Your task to perform on an android device: open app "Mercado Libre" Image 0: 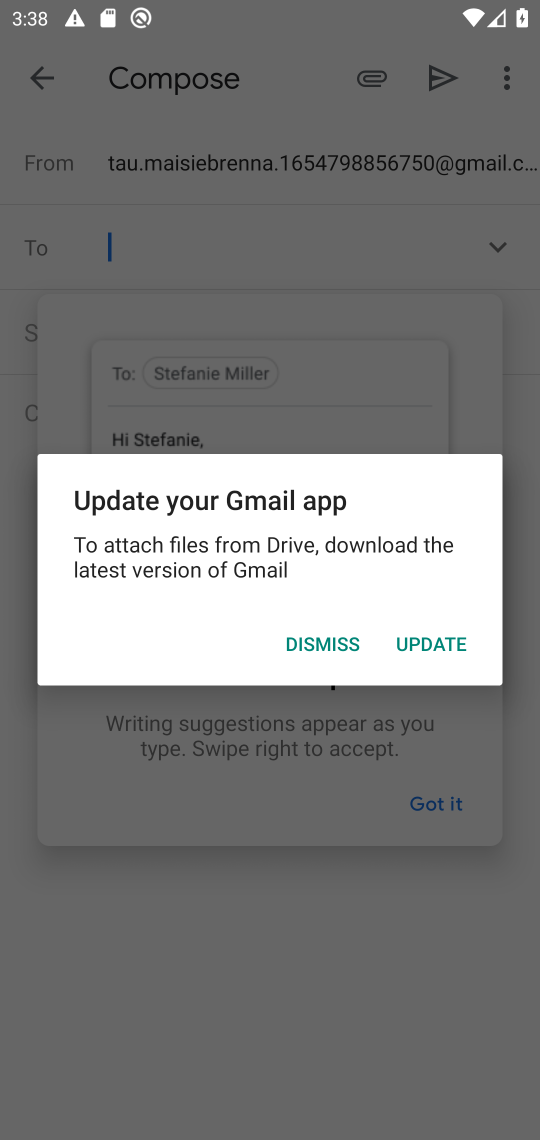
Step 0: click (340, 637)
Your task to perform on an android device: open app "Mercado Libre" Image 1: 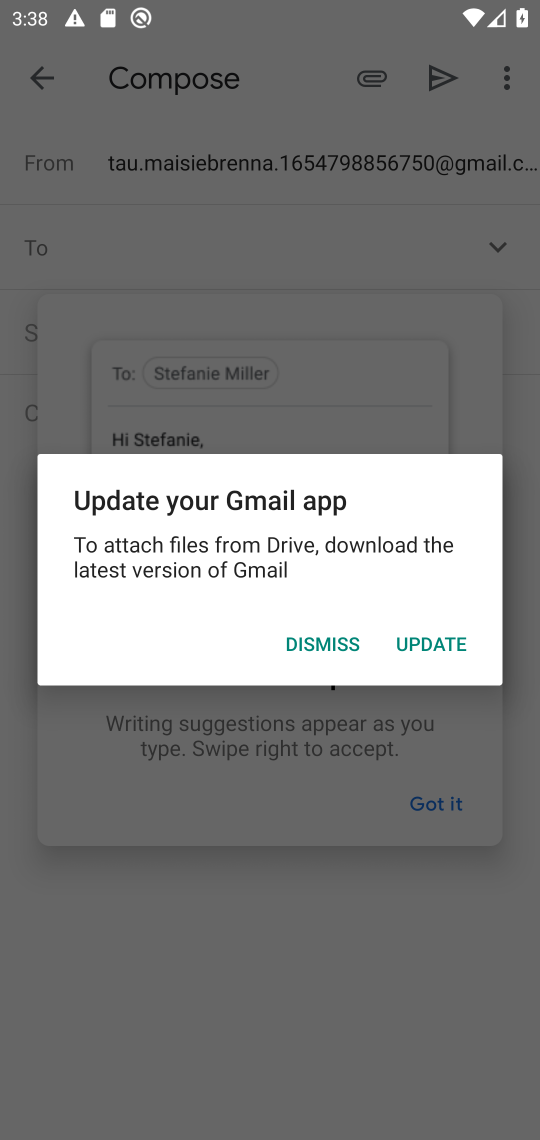
Step 1: click (340, 637)
Your task to perform on an android device: open app "Mercado Libre" Image 2: 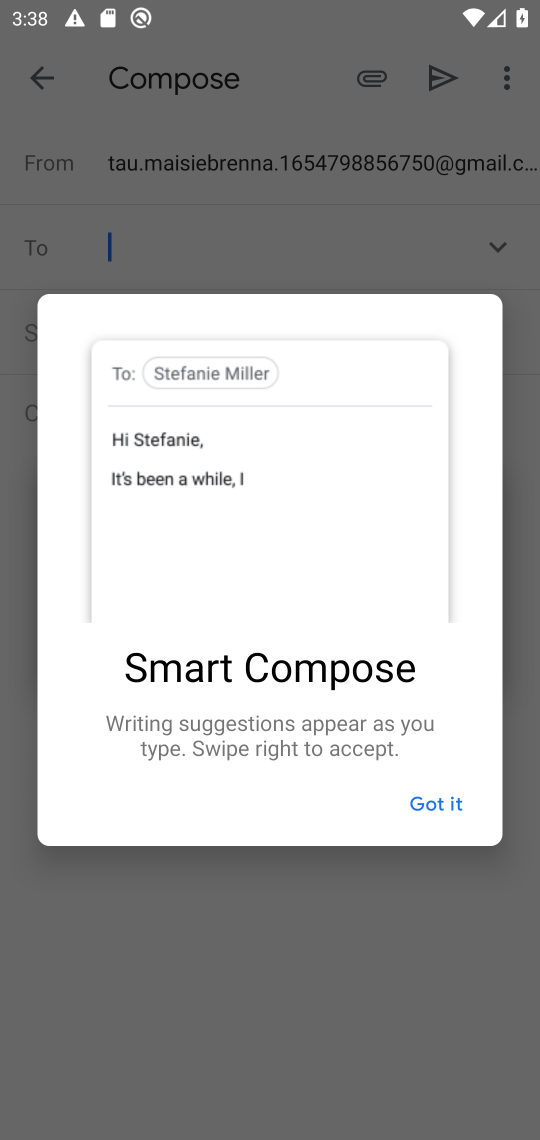
Step 2: click (446, 811)
Your task to perform on an android device: open app "Mercado Libre" Image 3: 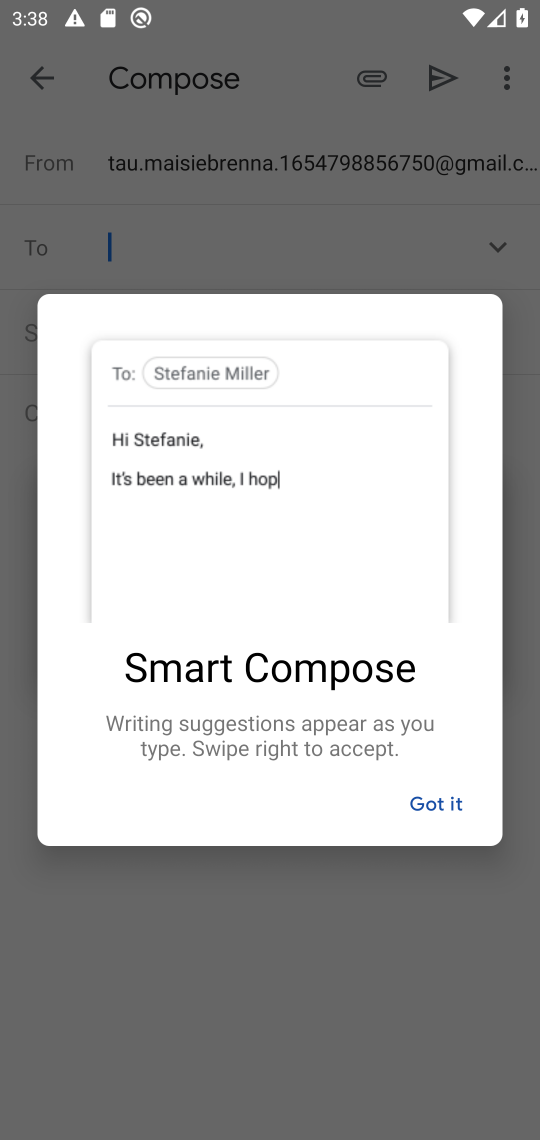
Step 3: click (446, 817)
Your task to perform on an android device: open app "Mercado Libre" Image 4: 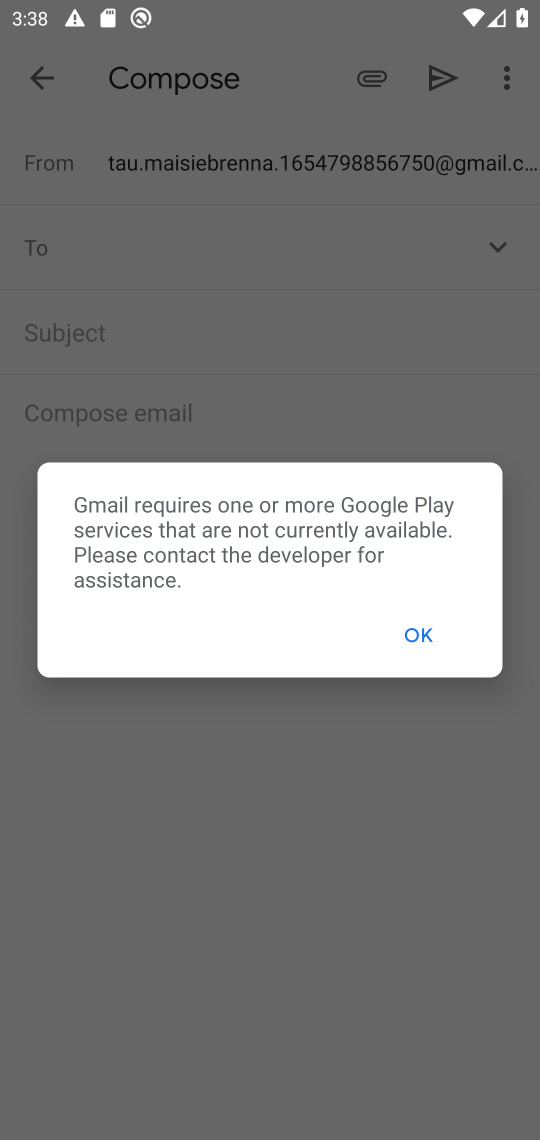
Step 4: click (404, 640)
Your task to perform on an android device: open app "Mercado Libre" Image 5: 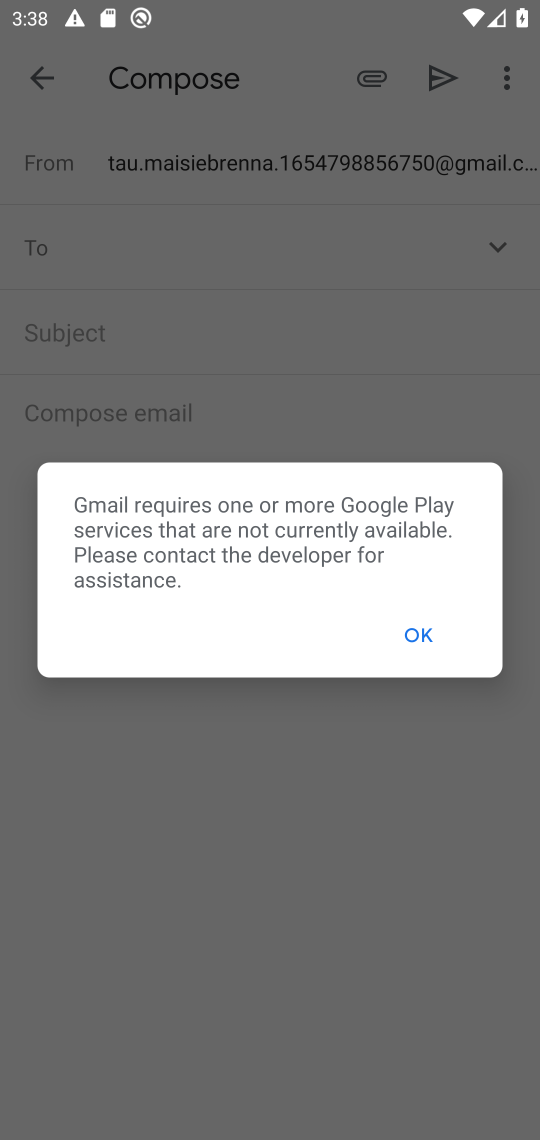
Step 5: click (405, 641)
Your task to perform on an android device: open app "Mercado Libre" Image 6: 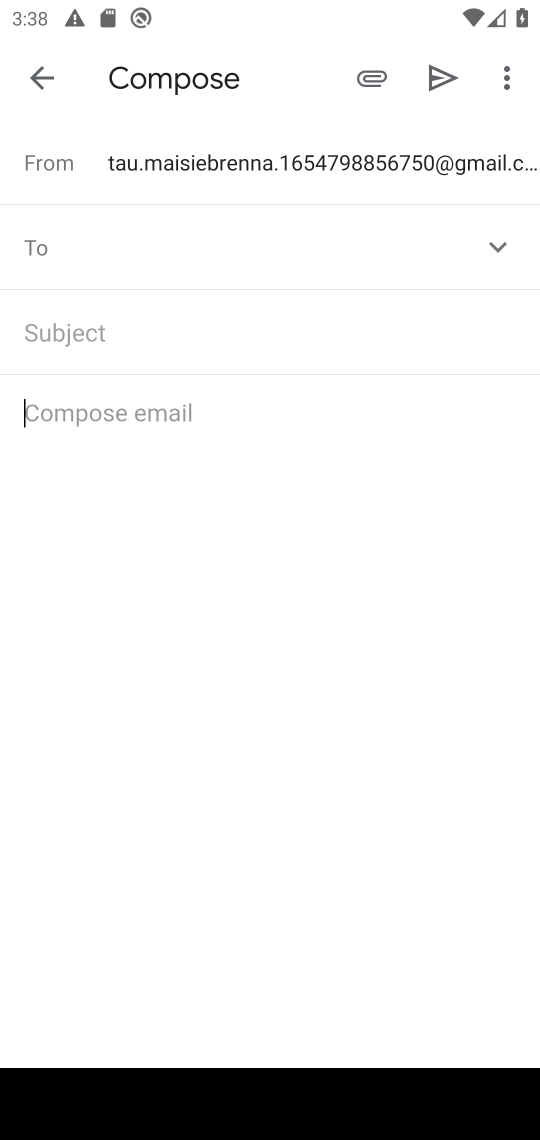
Step 6: click (45, 84)
Your task to perform on an android device: open app "Mercado Libre" Image 7: 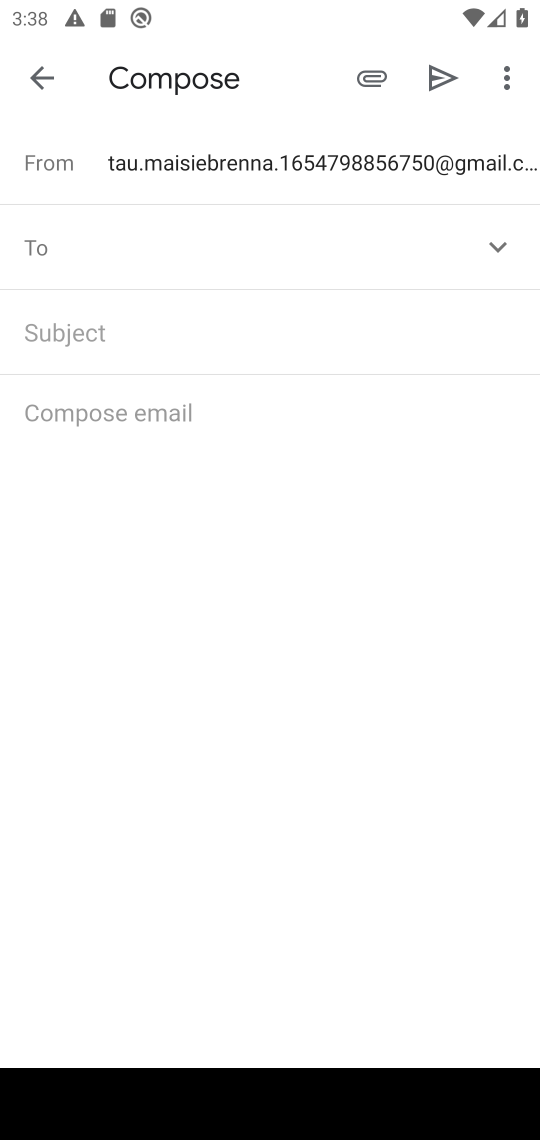
Step 7: click (45, 84)
Your task to perform on an android device: open app "Mercado Libre" Image 8: 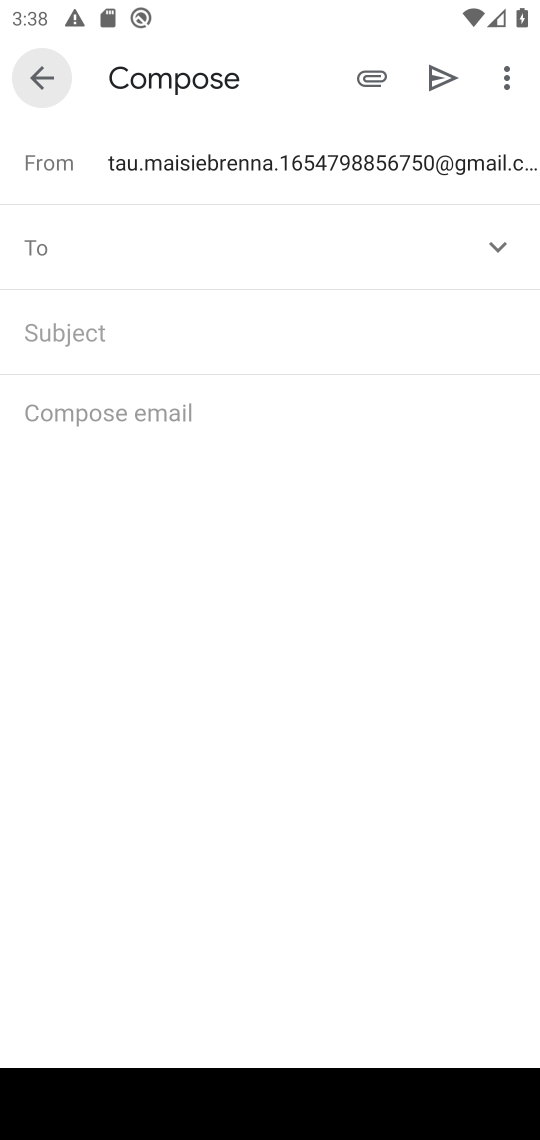
Step 8: click (46, 88)
Your task to perform on an android device: open app "Mercado Libre" Image 9: 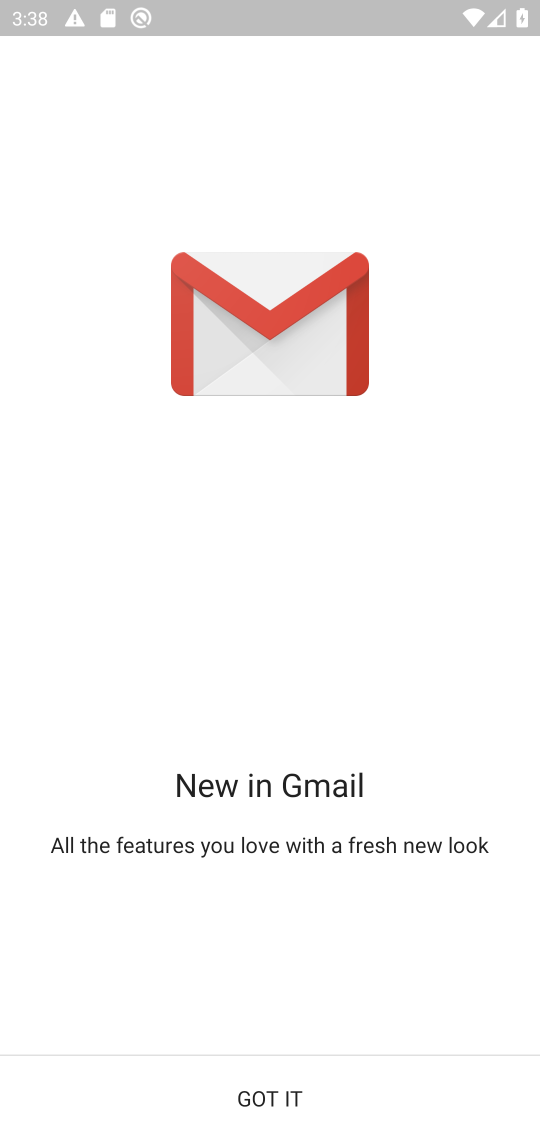
Step 9: press back button
Your task to perform on an android device: open app "Mercado Libre" Image 10: 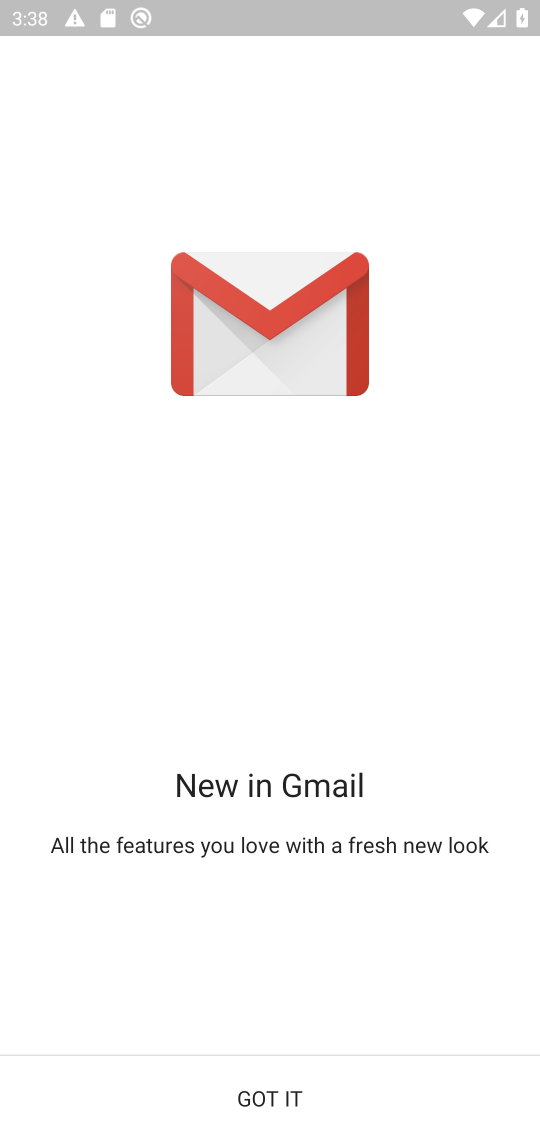
Step 10: press back button
Your task to perform on an android device: open app "Mercado Libre" Image 11: 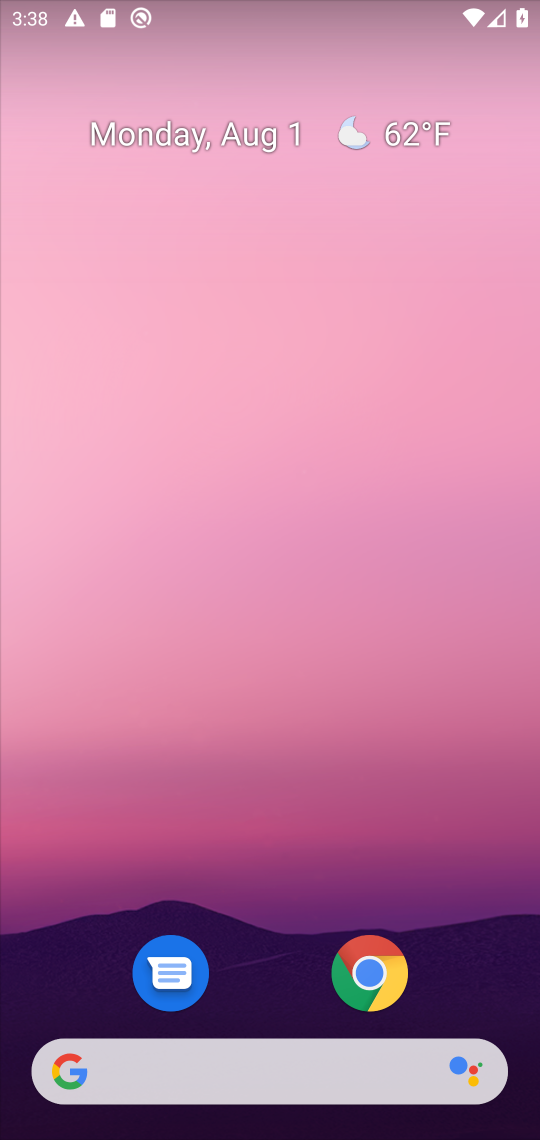
Step 11: press back button
Your task to perform on an android device: open app "Mercado Libre" Image 12: 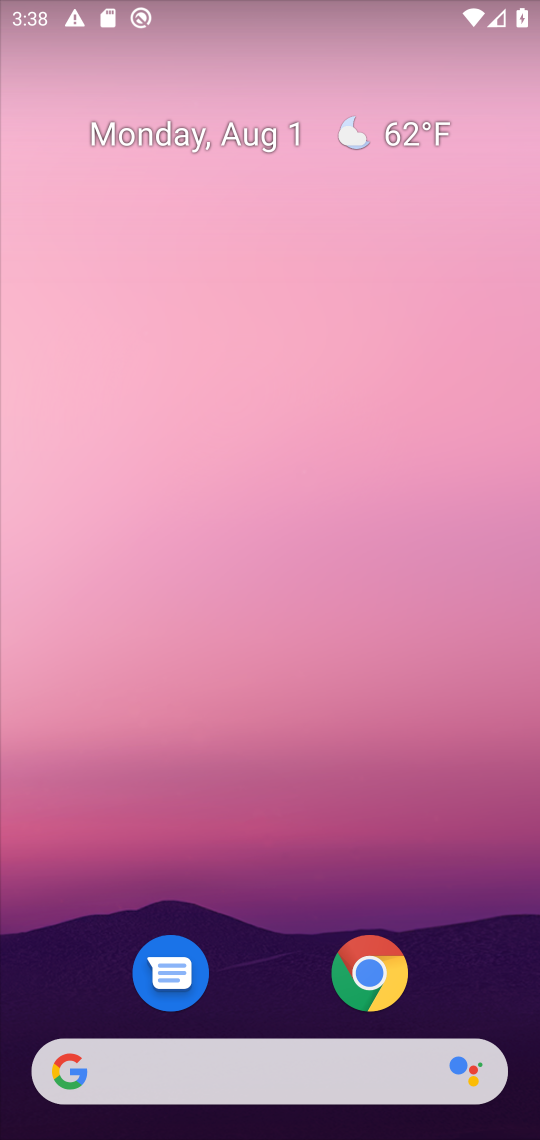
Step 12: click (279, 1102)
Your task to perform on an android device: open app "Mercado Libre" Image 13: 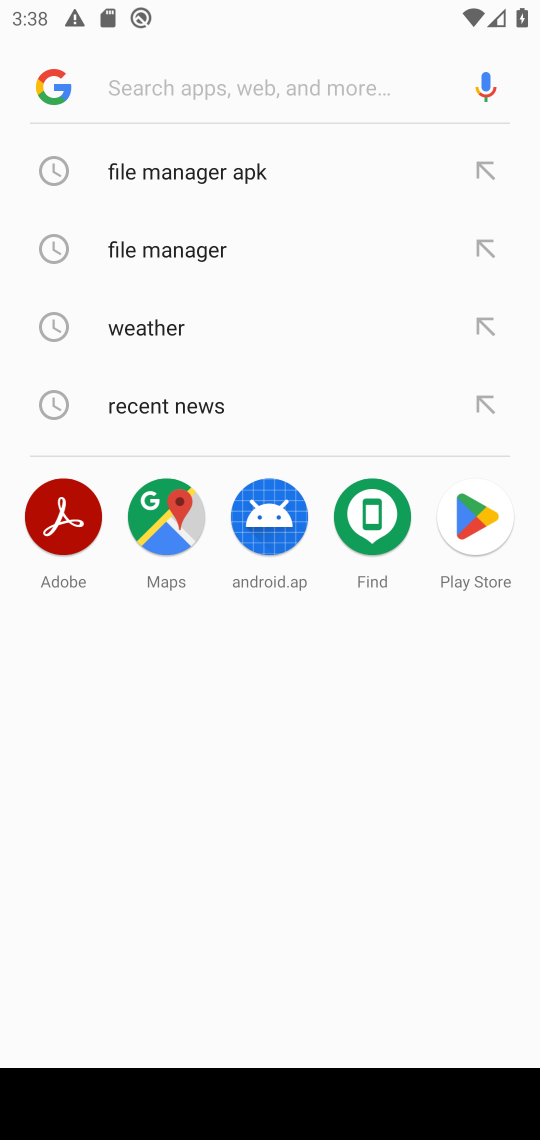
Step 13: type "mercado libre"
Your task to perform on an android device: open app "Mercado Libre" Image 14: 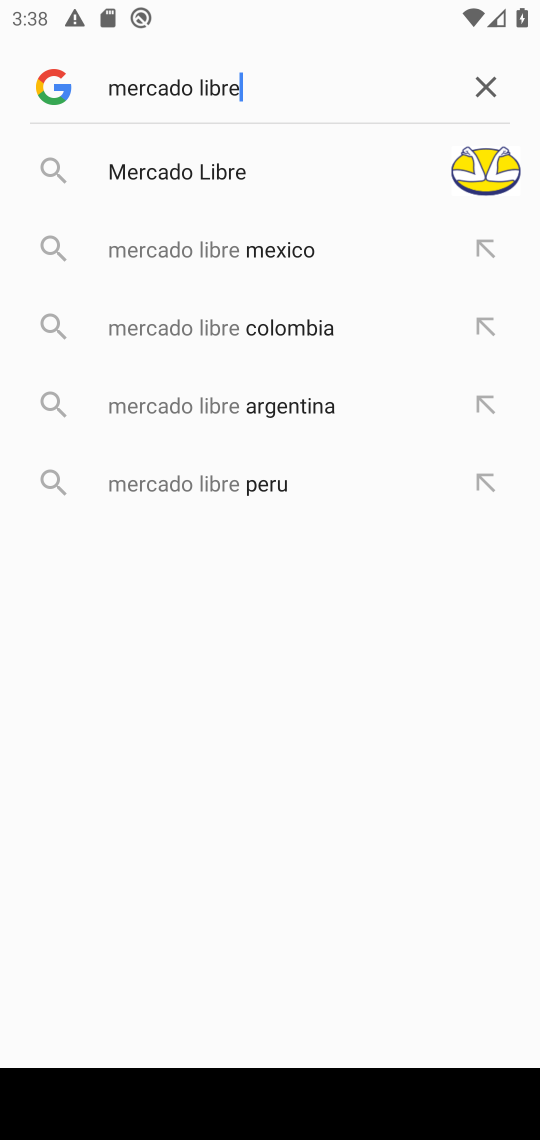
Step 14: click (183, 179)
Your task to perform on an android device: open app "Mercado Libre" Image 15: 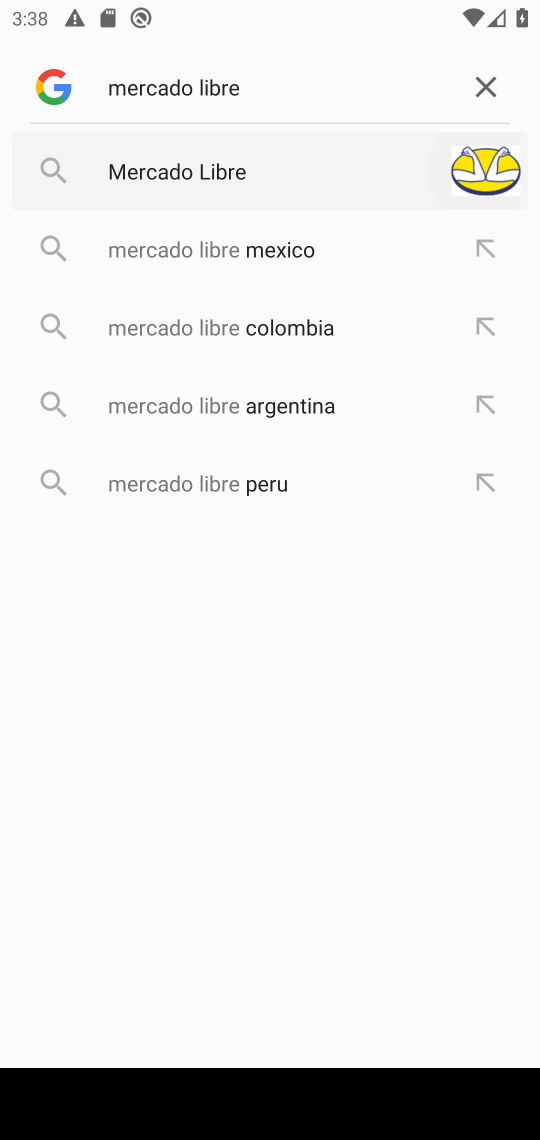
Step 15: click (183, 182)
Your task to perform on an android device: open app "Mercado Libre" Image 16: 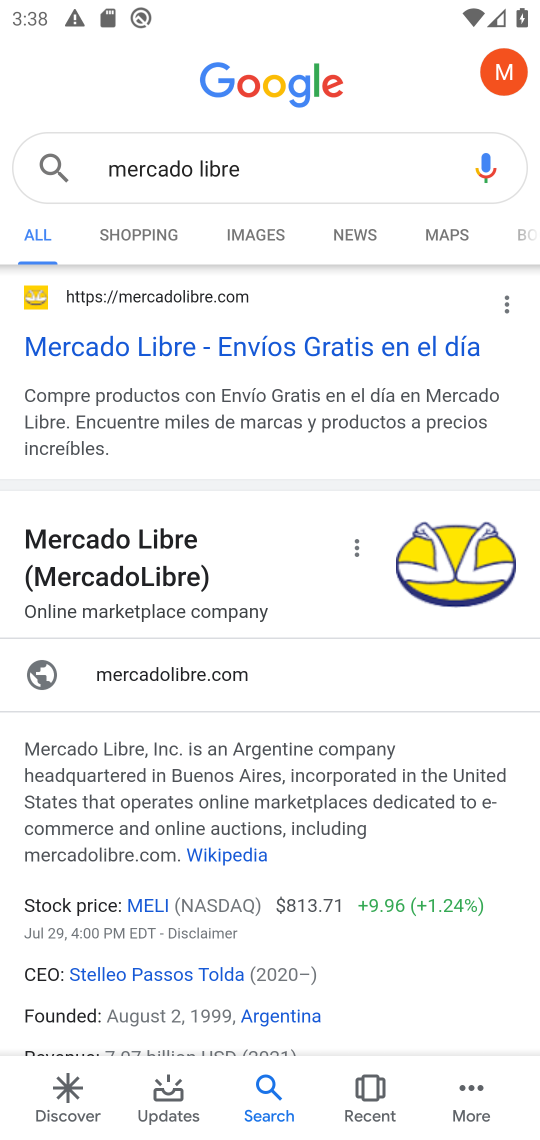
Step 16: press back button
Your task to perform on an android device: open app "Mercado Libre" Image 17: 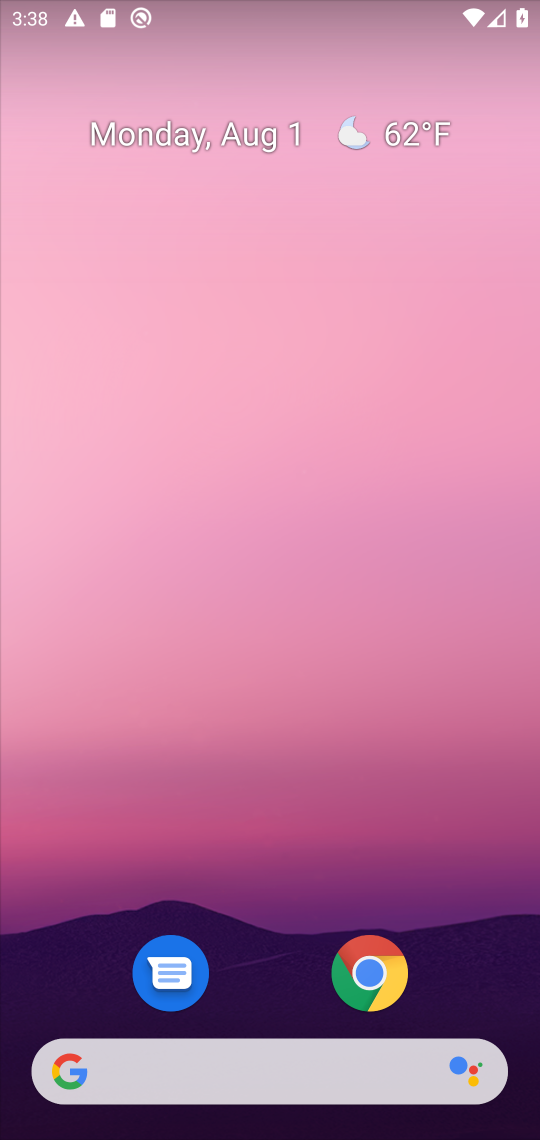
Step 17: drag from (283, 738) to (304, 230)
Your task to perform on an android device: open app "Mercado Libre" Image 18: 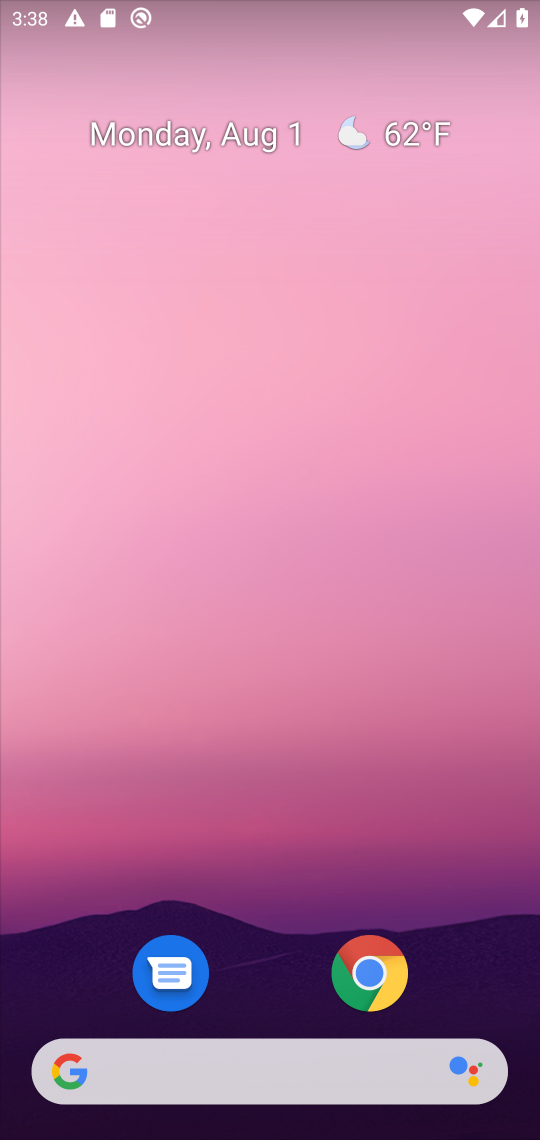
Step 18: drag from (310, 852) to (258, 246)
Your task to perform on an android device: open app "Mercado Libre" Image 19: 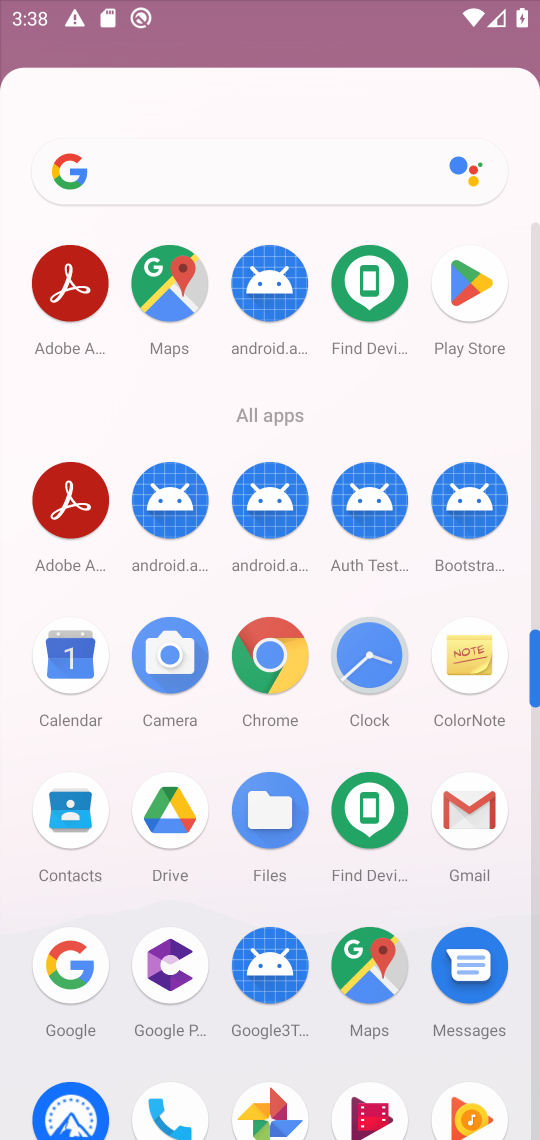
Step 19: drag from (155, 846) to (88, 184)
Your task to perform on an android device: open app "Mercado Libre" Image 20: 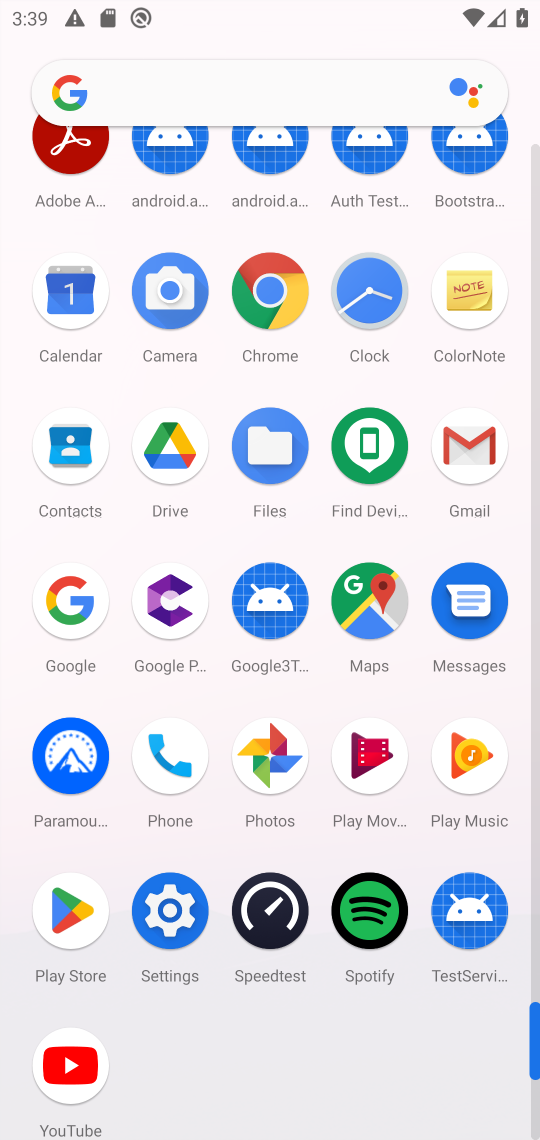
Step 20: click (79, 905)
Your task to perform on an android device: open app "Mercado Libre" Image 21: 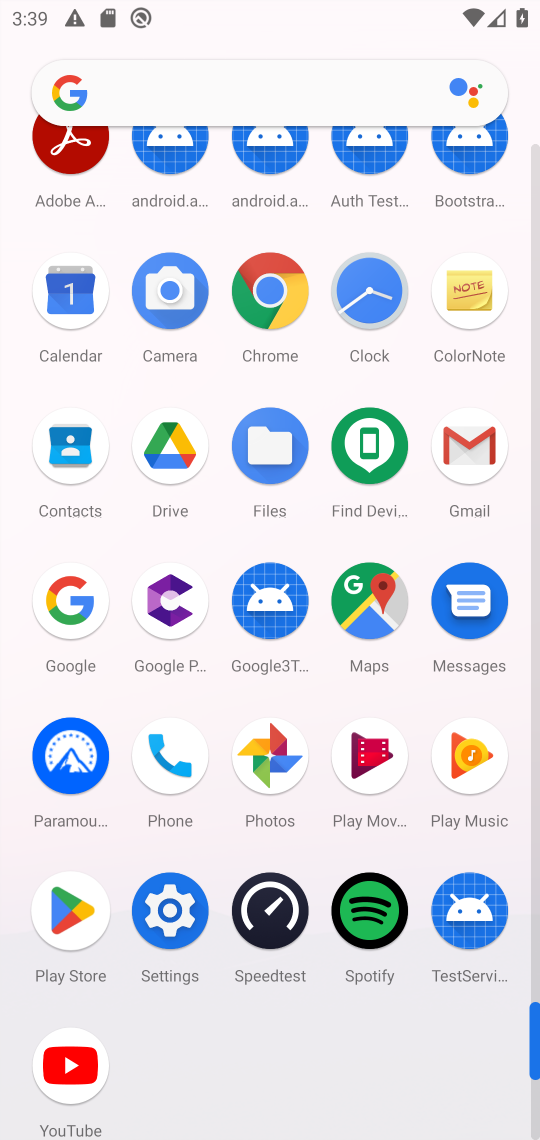
Step 21: click (77, 905)
Your task to perform on an android device: open app "Mercado Libre" Image 22: 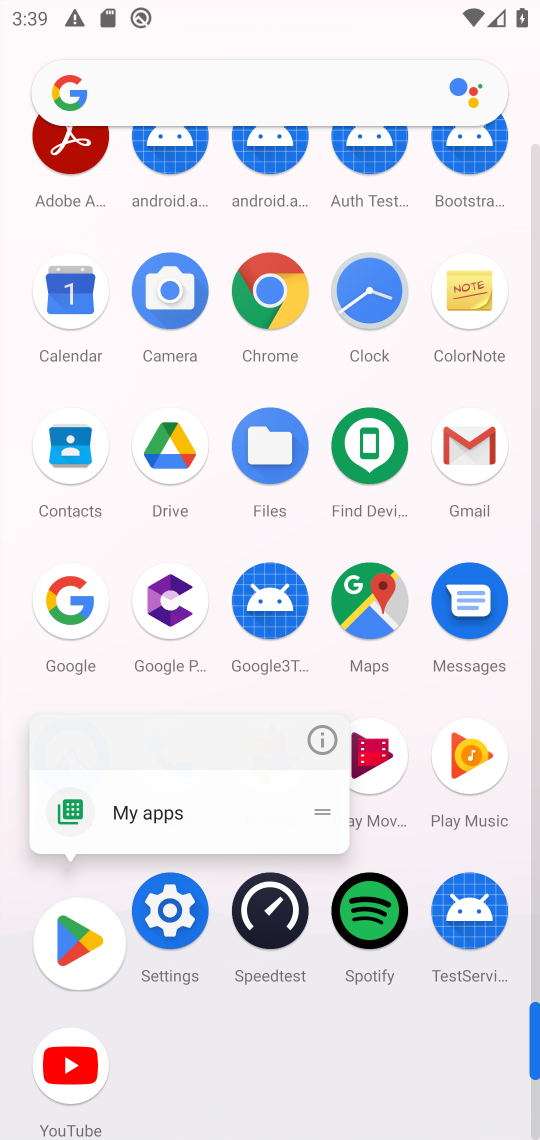
Step 22: click (87, 941)
Your task to perform on an android device: open app "Mercado Libre" Image 23: 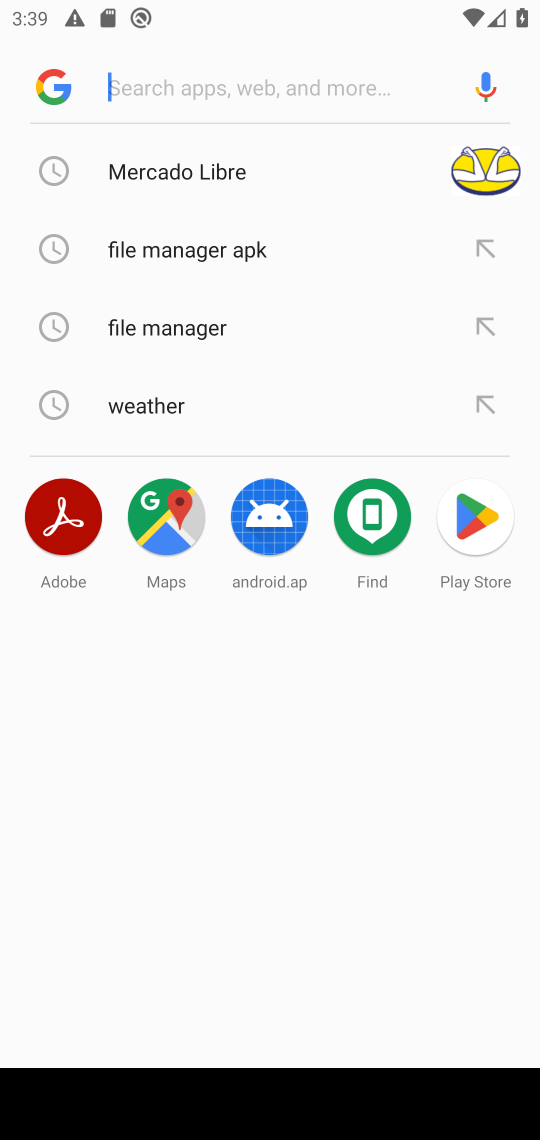
Step 23: click (130, 95)
Your task to perform on an android device: open app "Mercado Libre" Image 24: 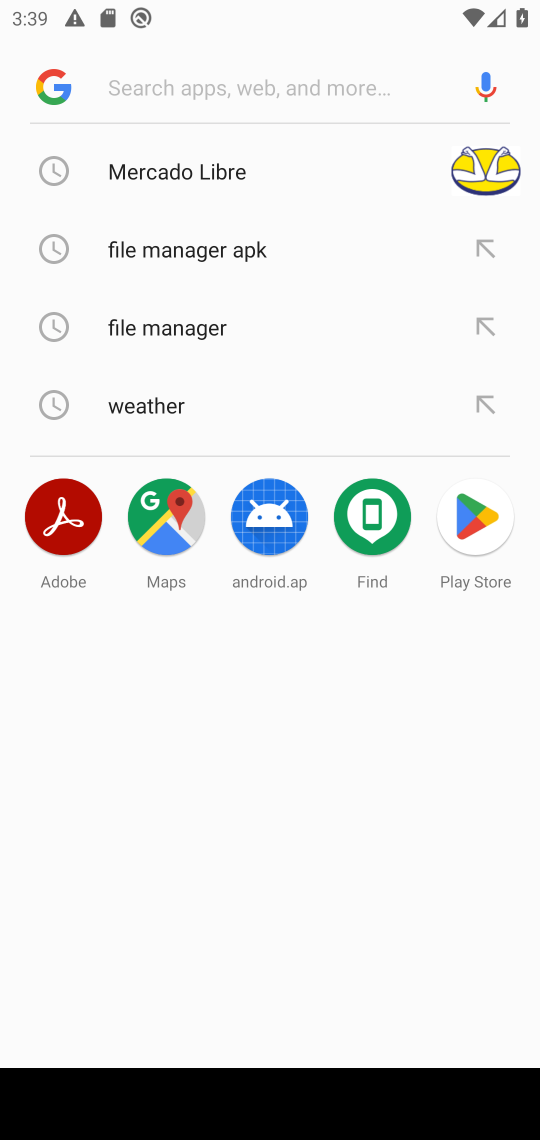
Step 24: type "mercado libre"
Your task to perform on an android device: open app "Mercado Libre" Image 25: 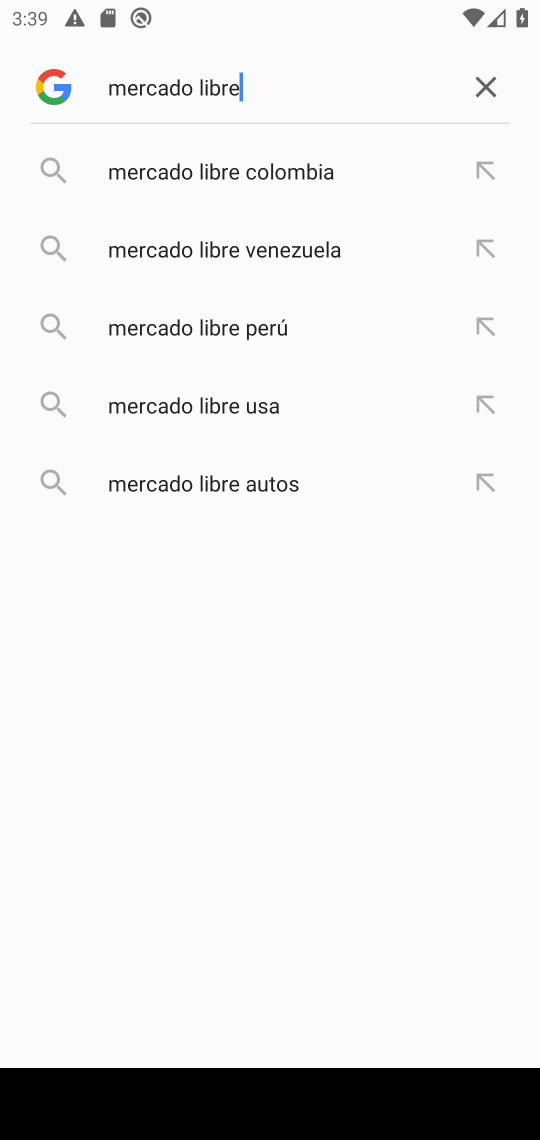
Step 25: click (186, 160)
Your task to perform on an android device: open app "Mercado Libre" Image 26: 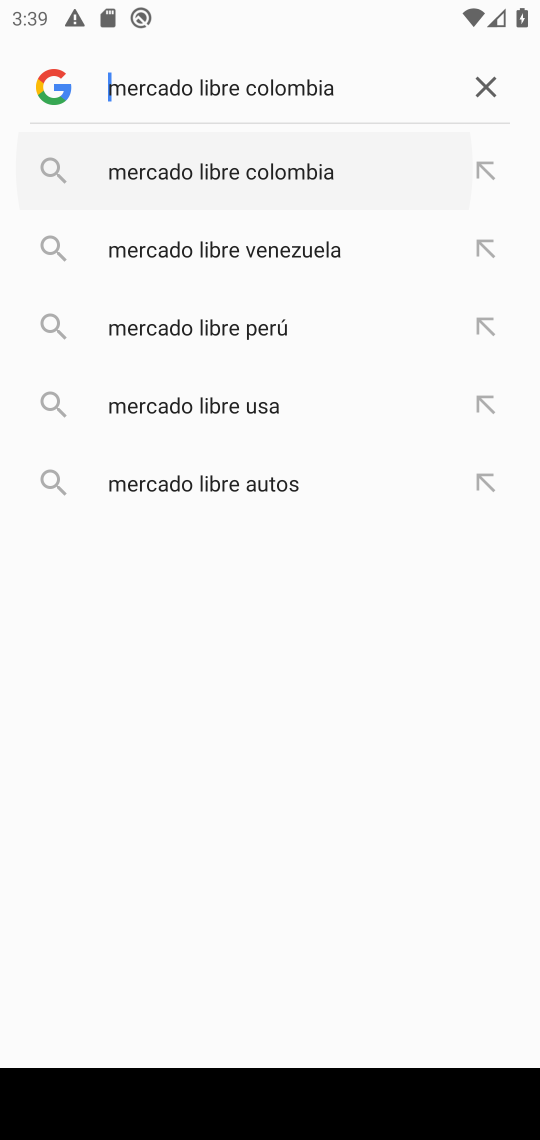
Step 26: click (179, 169)
Your task to perform on an android device: open app "Mercado Libre" Image 27: 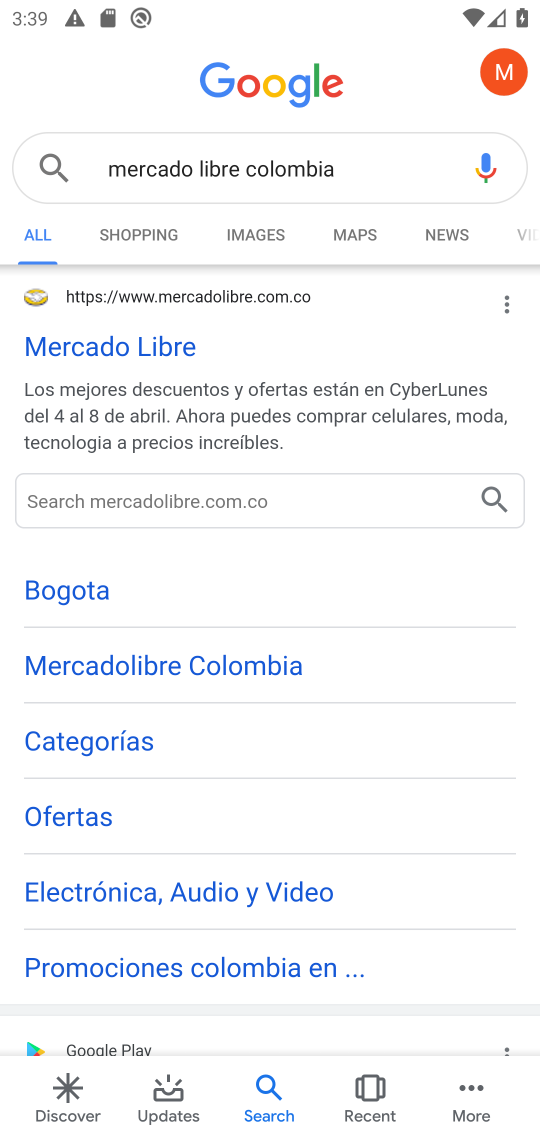
Step 27: task complete